Your task to perform on an android device: turn pop-ups off in chrome Image 0: 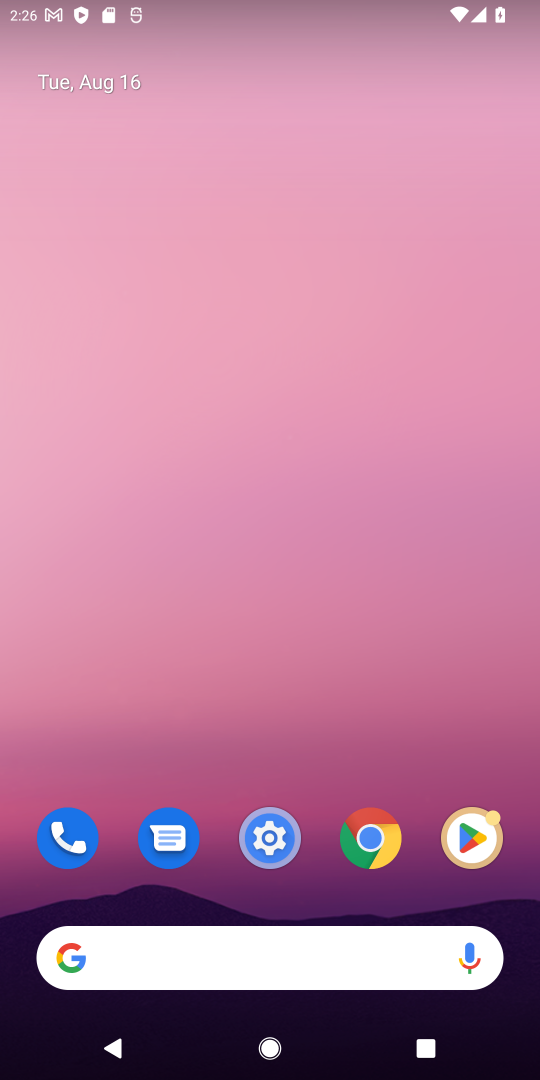
Step 0: press home button
Your task to perform on an android device: turn pop-ups off in chrome Image 1: 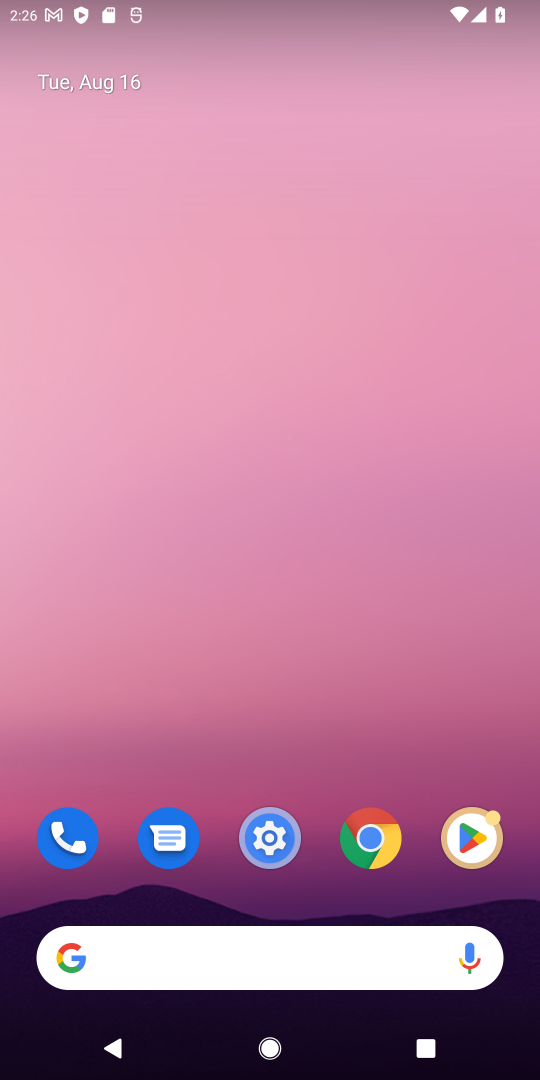
Step 1: click (380, 843)
Your task to perform on an android device: turn pop-ups off in chrome Image 2: 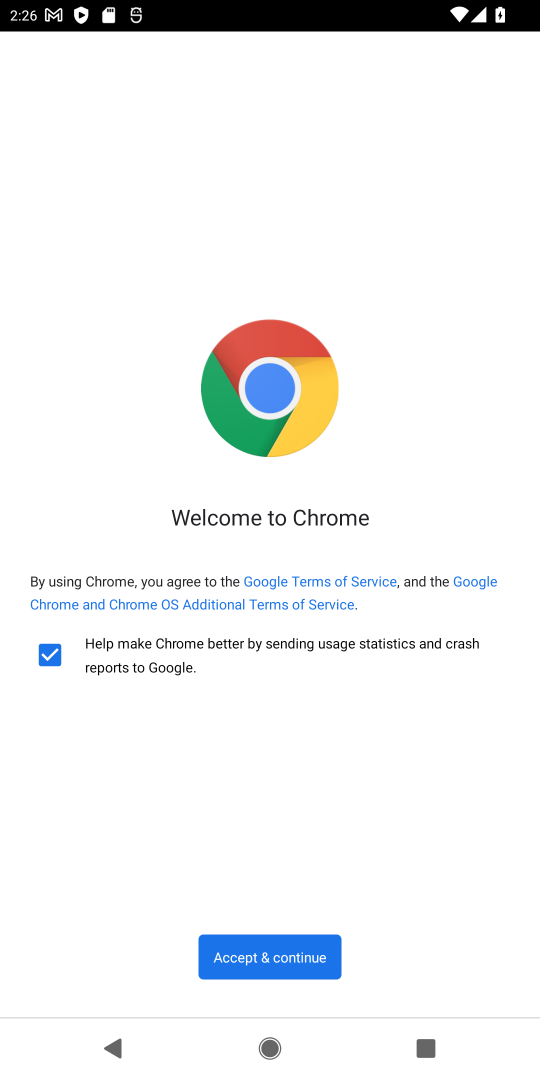
Step 2: click (298, 949)
Your task to perform on an android device: turn pop-ups off in chrome Image 3: 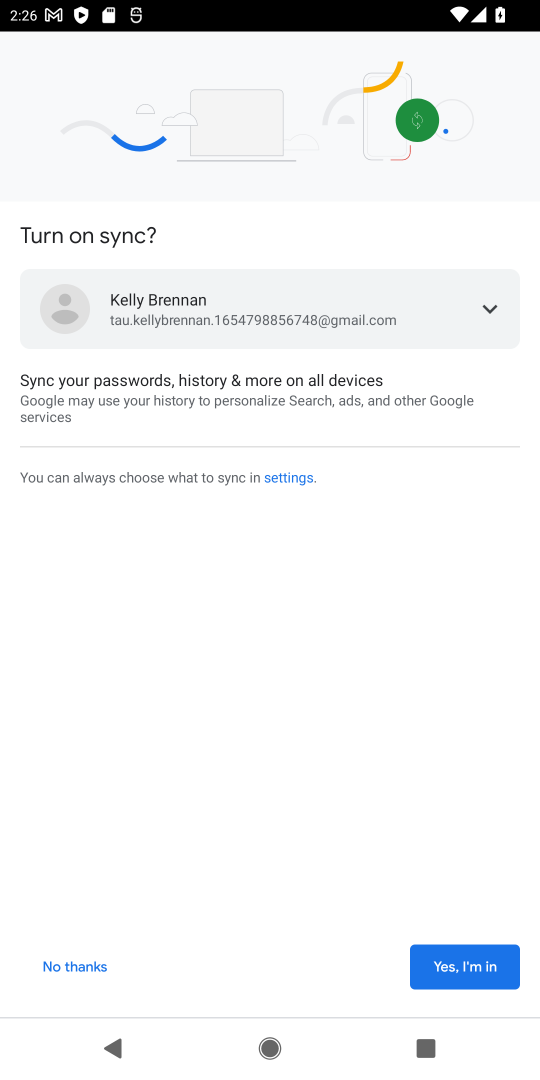
Step 3: click (492, 960)
Your task to perform on an android device: turn pop-ups off in chrome Image 4: 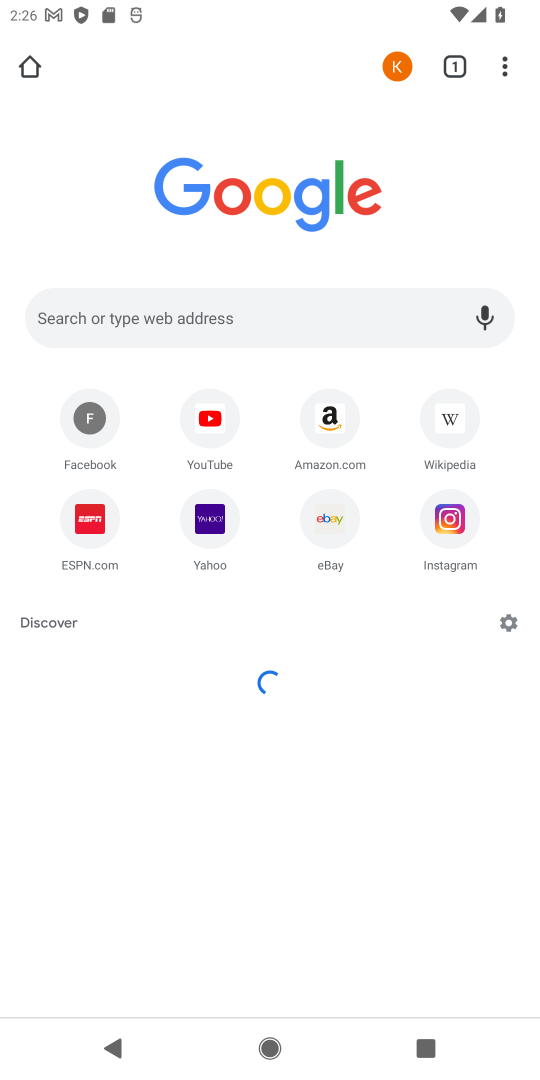
Step 4: drag from (497, 62) to (303, 587)
Your task to perform on an android device: turn pop-ups off in chrome Image 5: 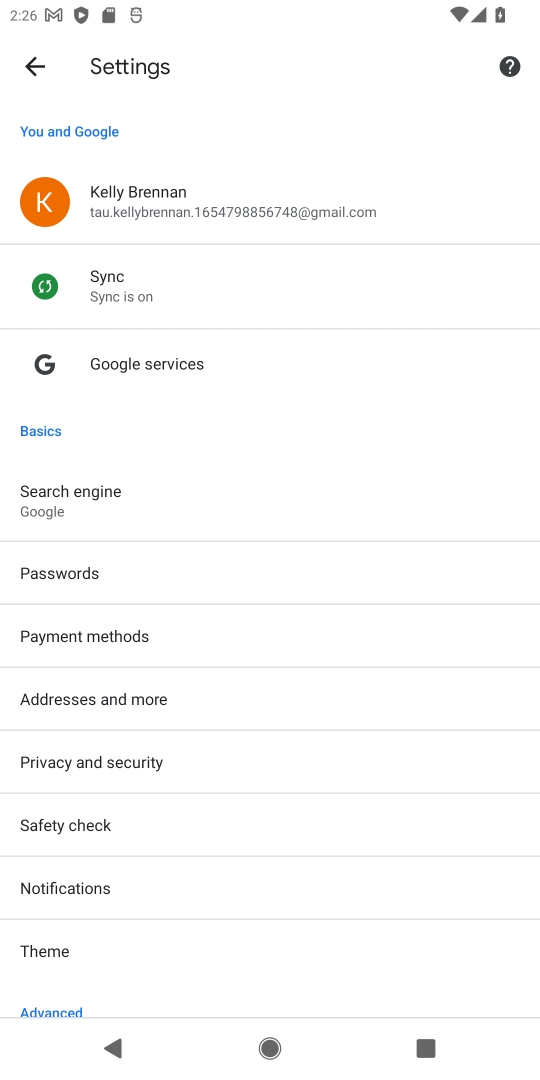
Step 5: drag from (245, 948) to (201, 328)
Your task to perform on an android device: turn pop-ups off in chrome Image 6: 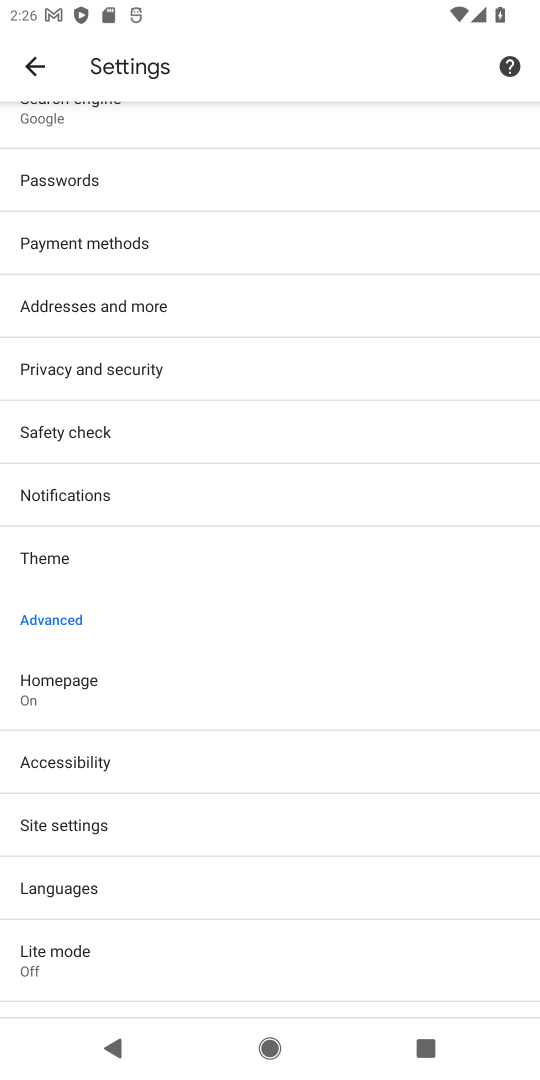
Step 6: click (83, 835)
Your task to perform on an android device: turn pop-ups off in chrome Image 7: 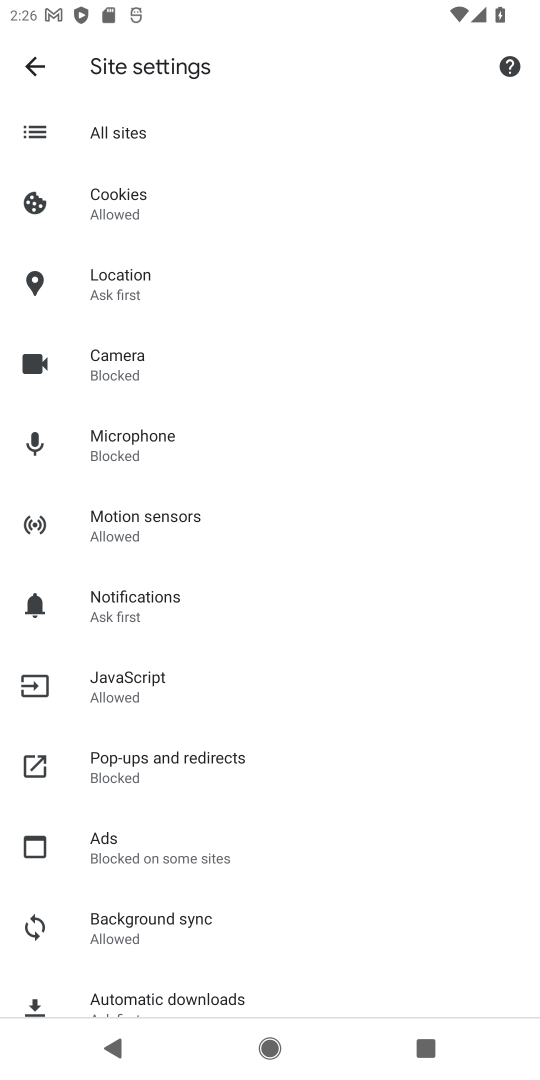
Step 7: click (259, 769)
Your task to perform on an android device: turn pop-ups off in chrome Image 8: 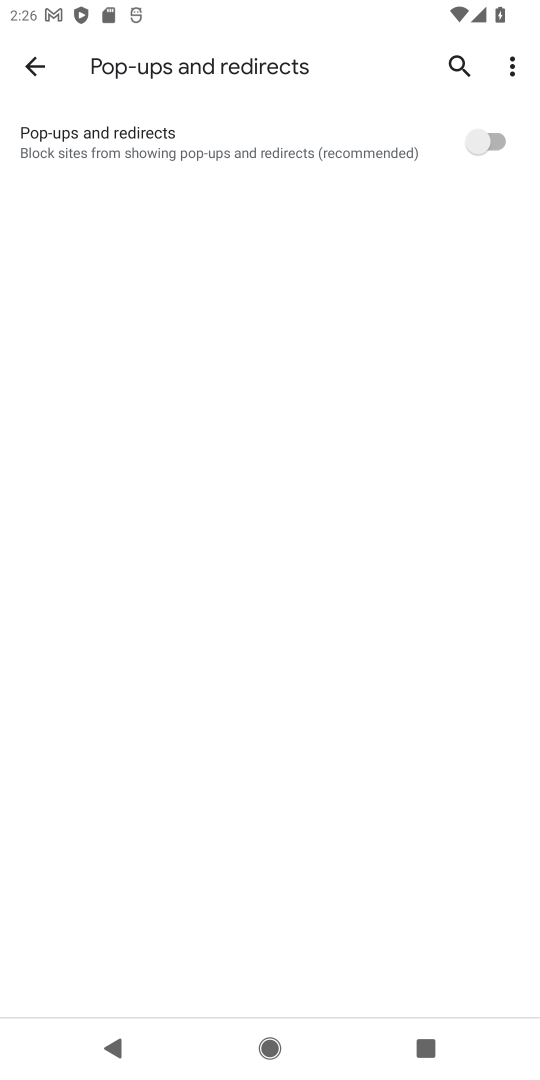
Step 8: task complete